Your task to perform on an android device: change the clock display to analog Image 0: 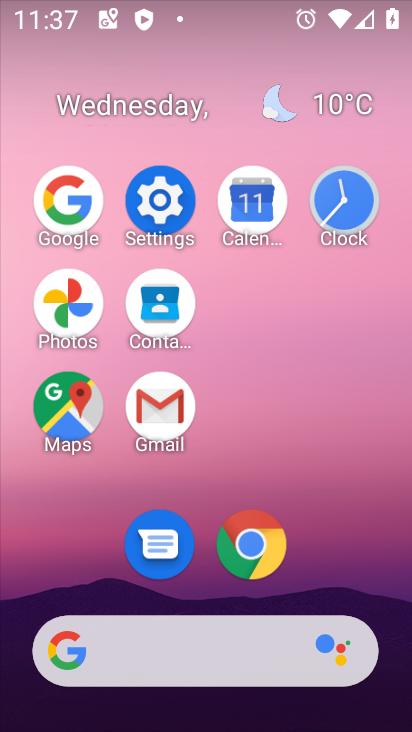
Step 0: click (370, 212)
Your task to perform on an android device: change the clock display to analog Image 1: 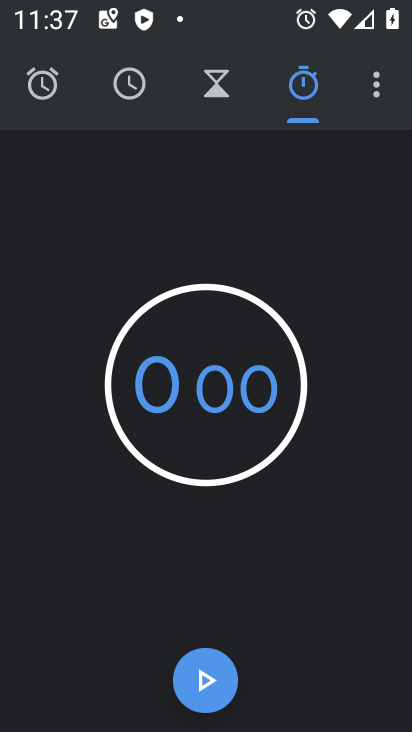
Step 1: click (382, 99)
Your task to perform on an android device: change the clock display to analog Image 2: 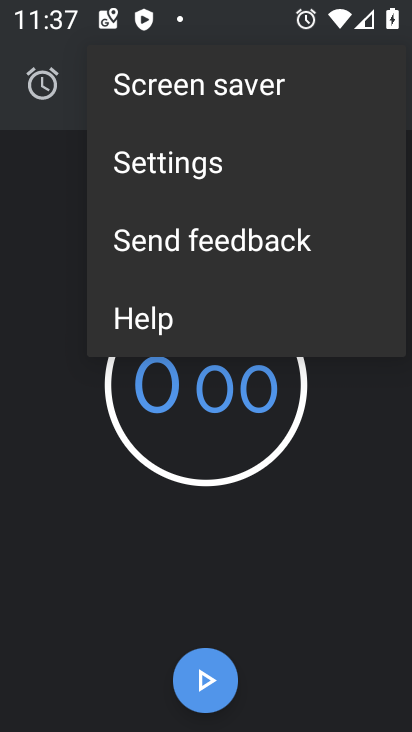
Step 2: click (249, 155)
Your task to perform on an android device: change the clock display to analog Image 3: 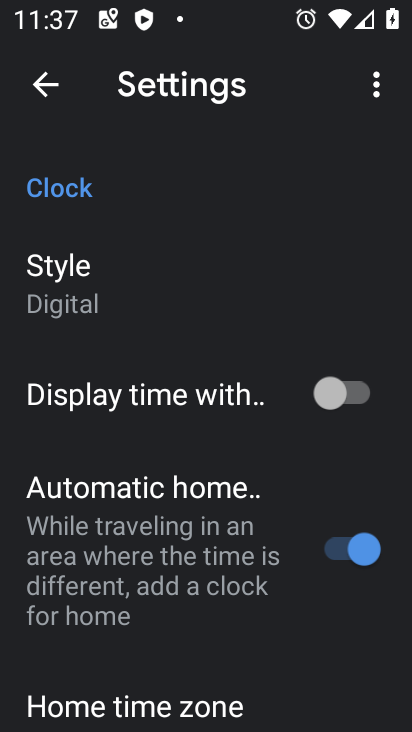
Step 3: click (258, 286)
Your task to perform on an android device: change the clock display to analog Image 4: 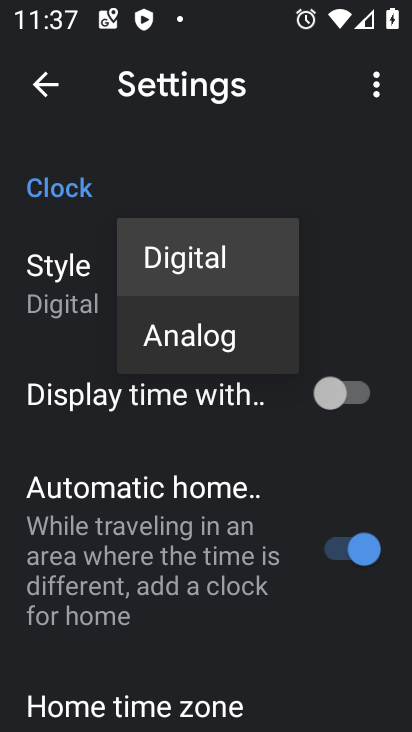
Step 4: click (237, 325)
Your task to perform on an android device: change the clock display to analog Image 5: 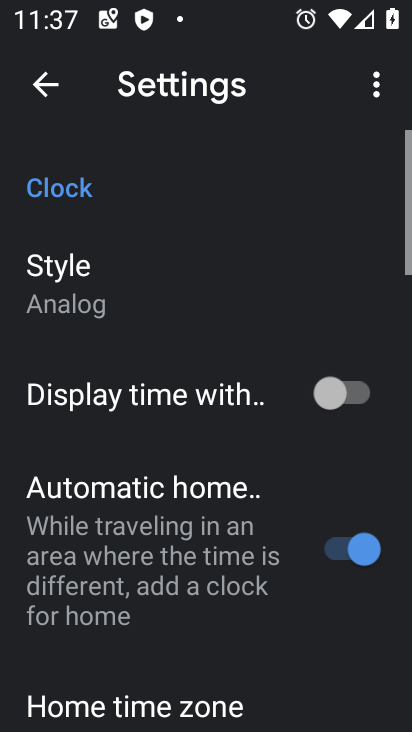
Step 5: task complete